Your task to perform on an android device: Open Chrome and go to settings Image 0: 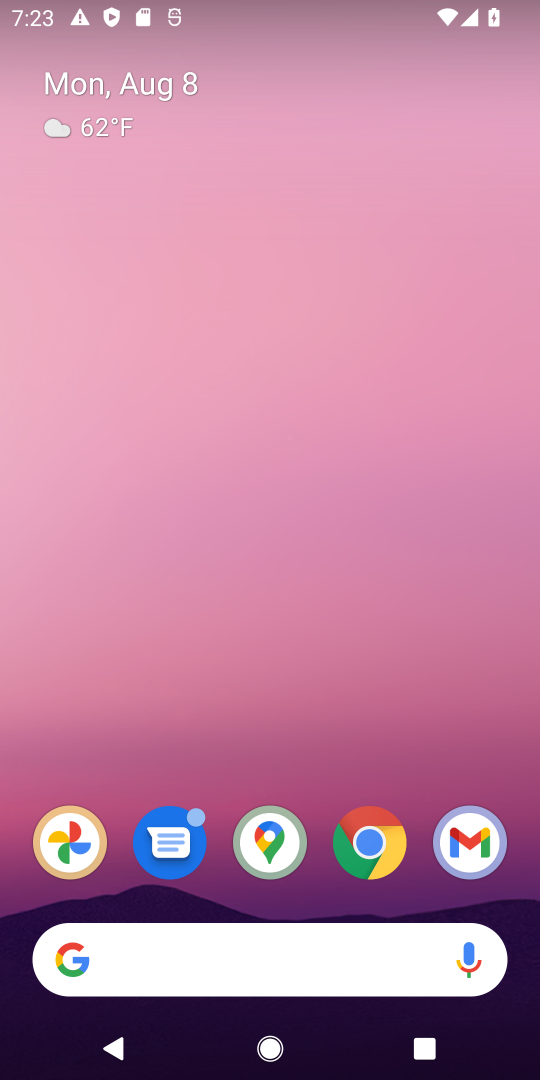
Step 0: click (365, 844)
Your task to perform on an android device: Open Chrome and go to settings Image 1: 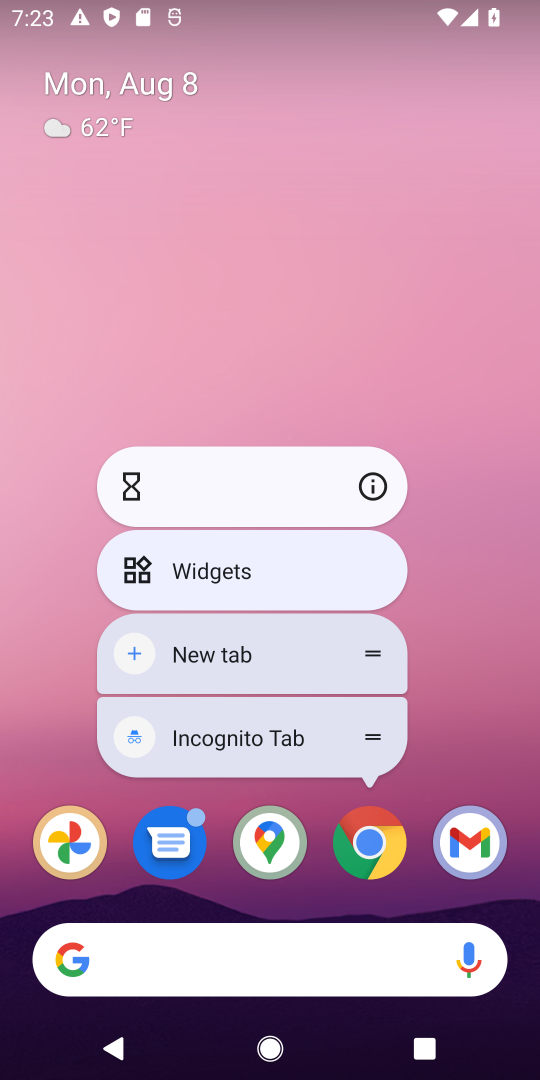
Step 1: click (374, 839)
Your task to perform on an android device: Open Chrome and go to settings Image 2: 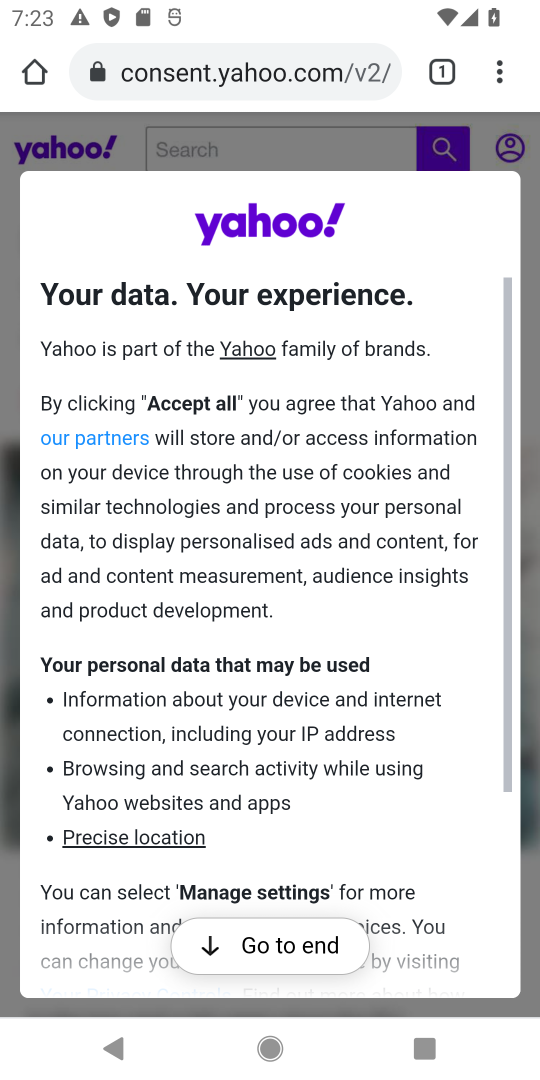
Step 2: click (497, 74)
Your task to perform on an android device: Open Chrome and go to settings Image 3: 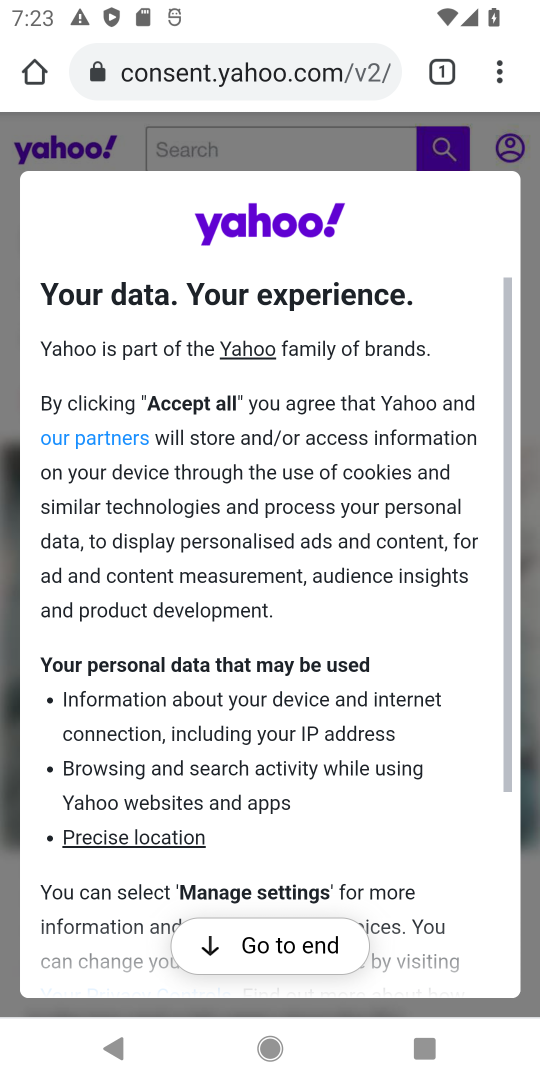
Step 3: click (491, 70)
Your task to perform on an android device: Open Chrome and go to settings Image 4: 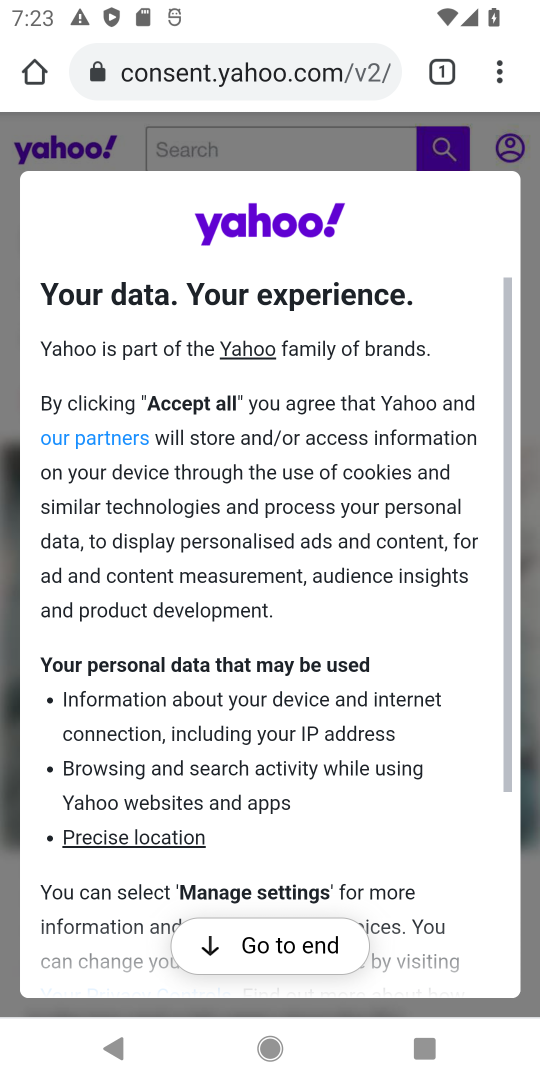
Step 4: click (491, 70)
Your task to perform on an android device: Open Chrome and go to settings Image 5: 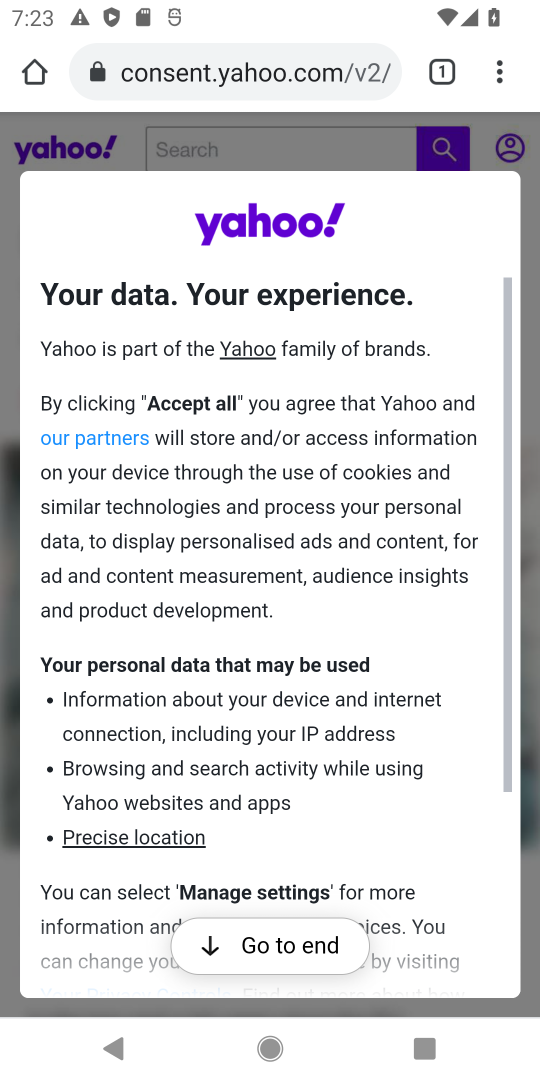
Step 5: click (493, 64)
Your task to perform on an android device: Open Chrome and go to settings Image 6: 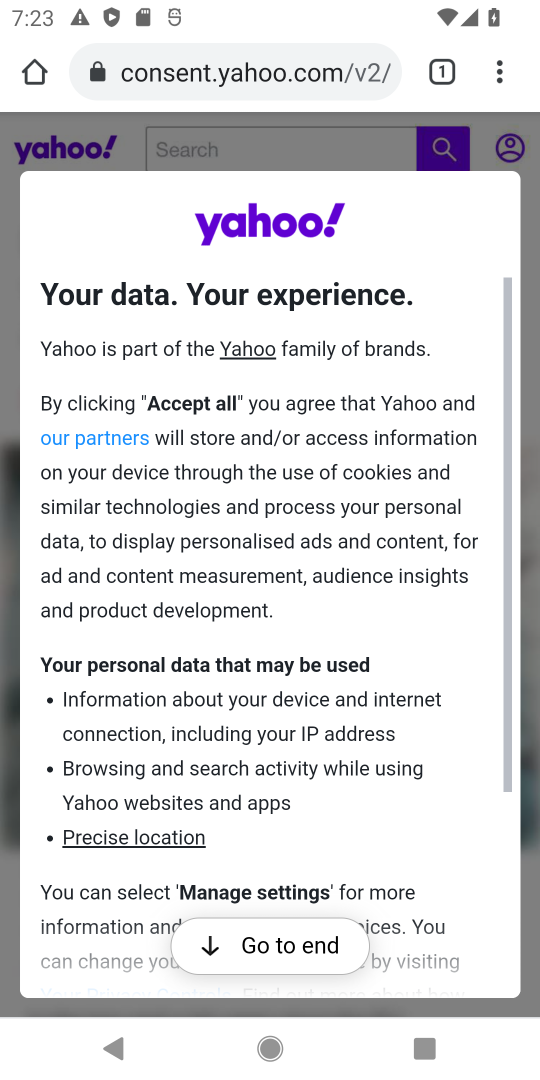
Step 6: click (497, 68)
Your task to perform on an android device: Open Chrome and go to settings Image 7: 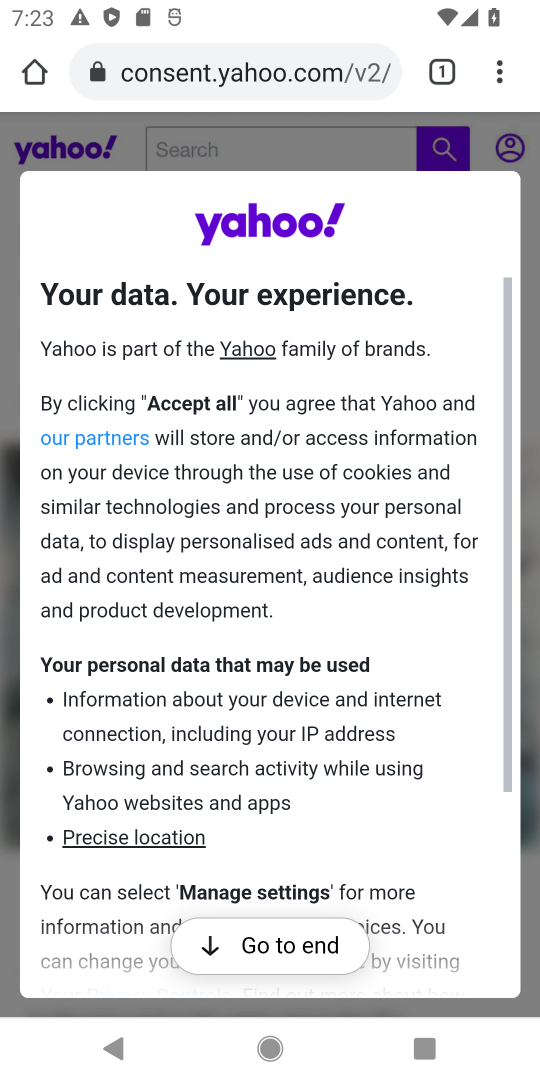
Step 7: click (497, 68)
Your task to perform on an android device: Open Chrome and go to settings Image 8: 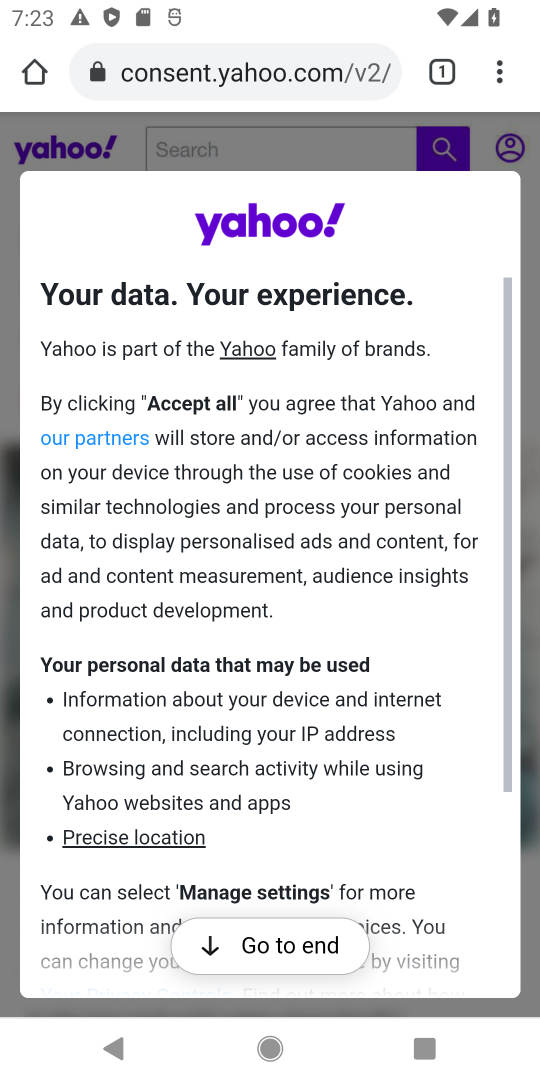
Step 8: click (497, 68)
Your task to perform on an android device: Open Chrome and go to settings Image 9: 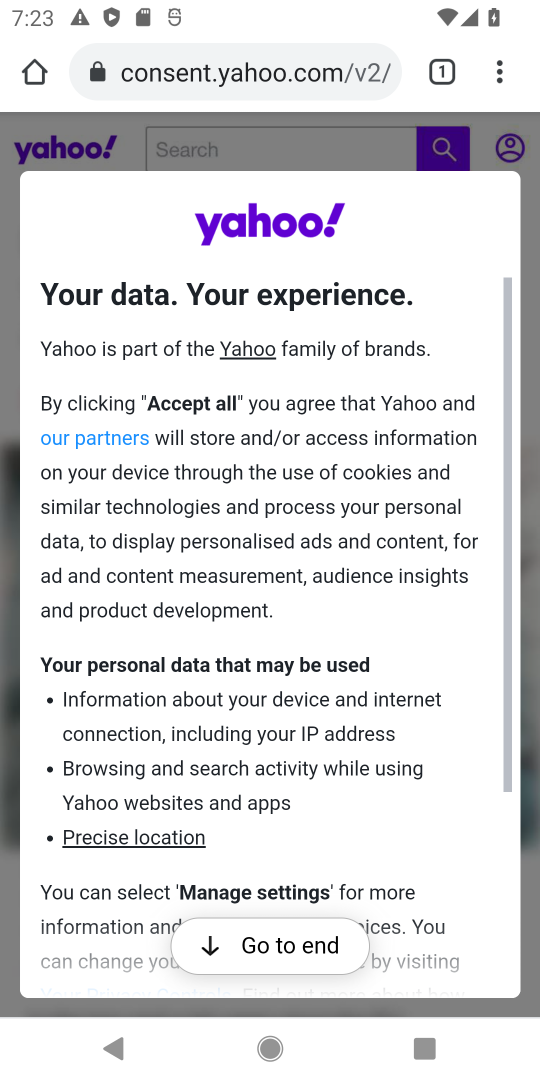
Step 9: click (497, 68)
Your task to perform on an android device: Open Chrome and go to settings Image 10: 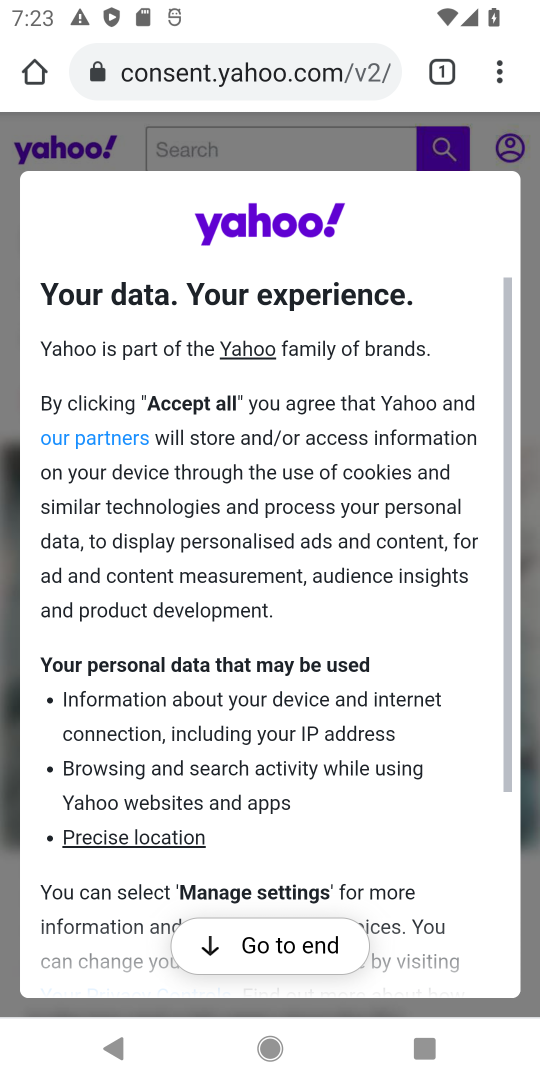
Step 10: click (497, 68)
Your task to perform on an android device: Open Chrome and go to settings Image 11: 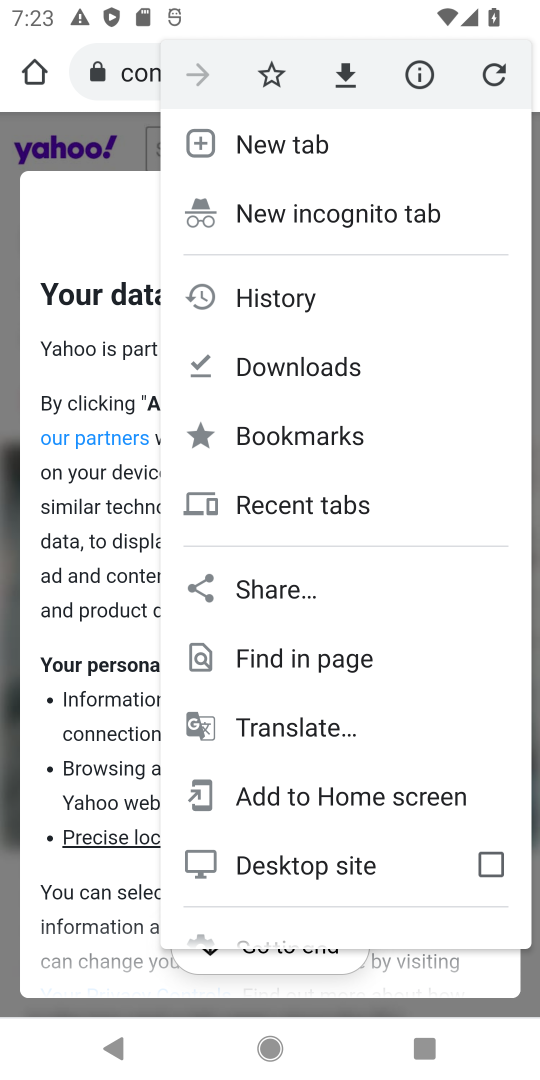
Step 11: drag from (396, 837) to (432, 343)
Your task to perform on an android device: Open Chrome and go to settings Image 12: 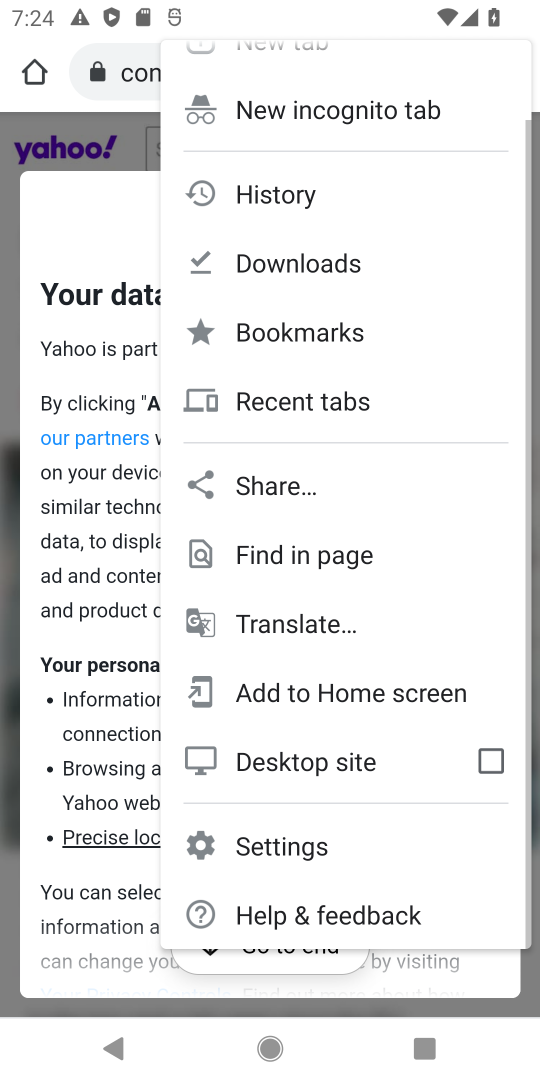
Step 12: click (293, 839)
Your task to perform on an android device: Open Chrome and go to settings Image 13: 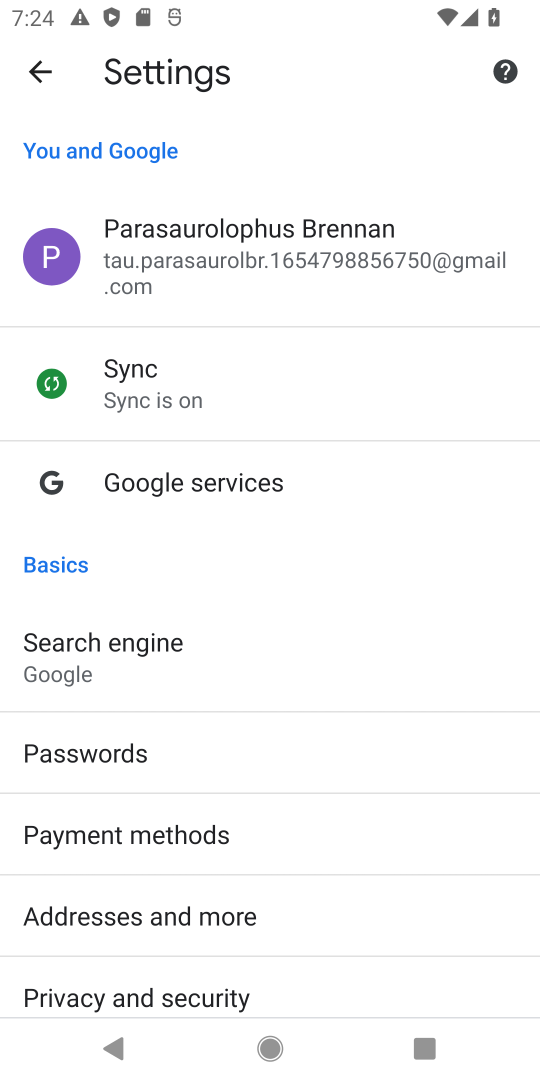
Step 13: task complete